Your task to perform on an android device: toggle pop-ups in chrome Image 0: 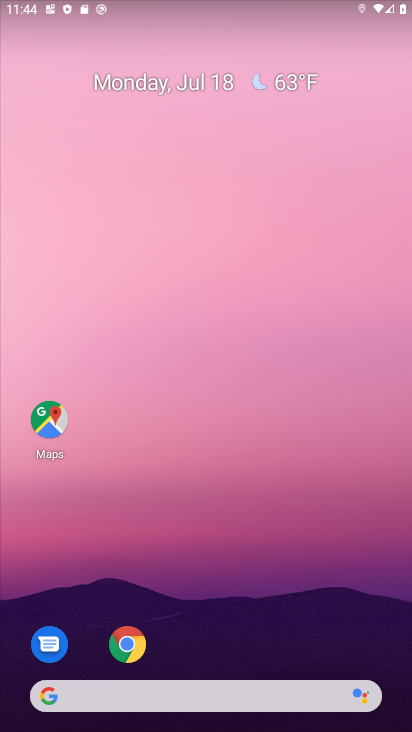
Step 0: click (126, 646)
Your task to perform on an android device: toggle pop-ups in chrome Image 1: 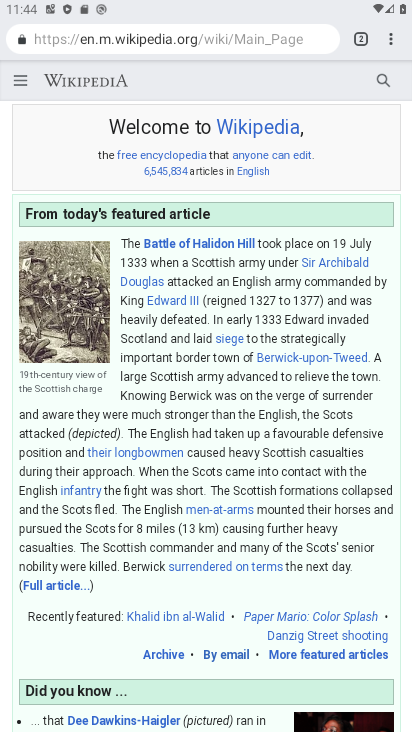
Step 1: click (392, 40)
Your task to perform on an android device: toggle pop-ups in chrome Image 2: 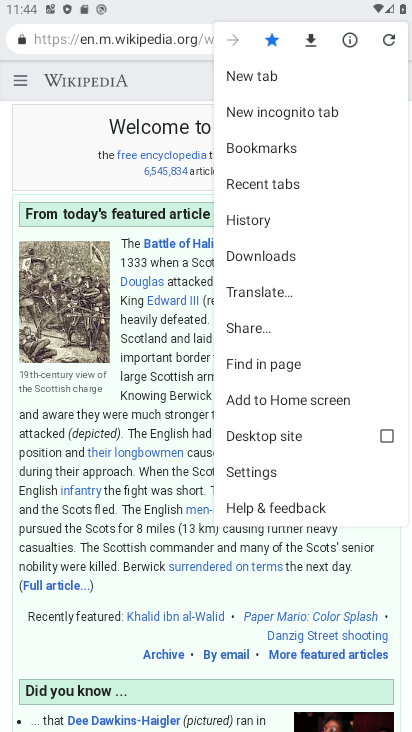
Step 2: click (267, 473)
Your task to perform on an android device: toggle pop-ups in chrome Image 3: 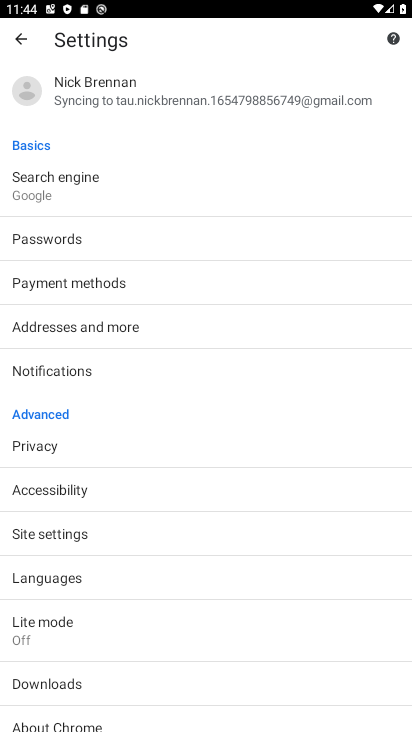
Step 3: click (50, 532)
Your task to perform on an android device: toggle pop-ups in chrome Image 4: 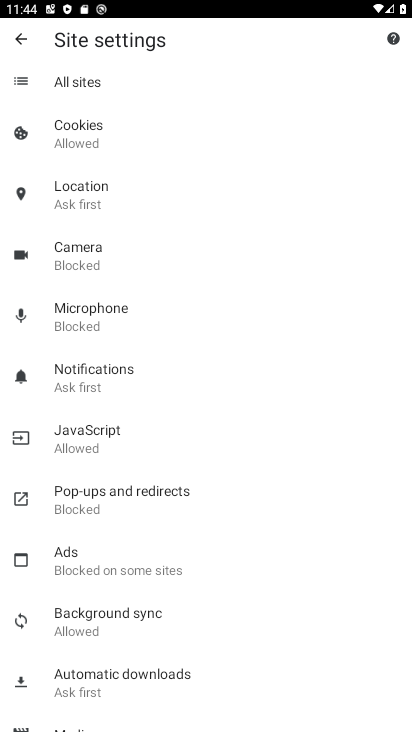
Step 4: click (93, 500)
Your task to perform on an android device: toggle pop-ups in chrome Image 5: 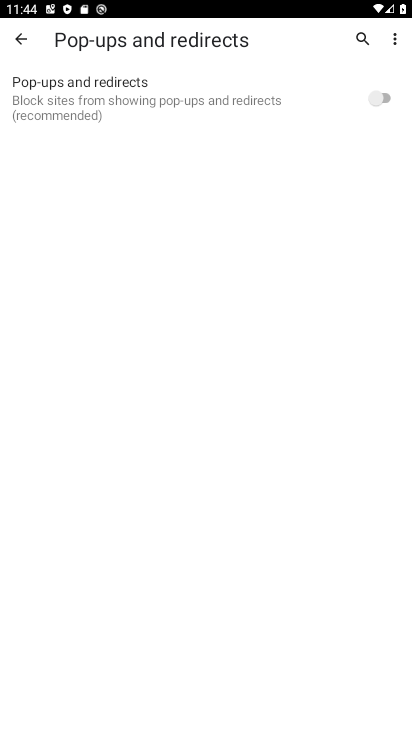
Step 5: click (386, 96)
Your task to perform on an android device: toggle pop-ups in chrome Image 6: 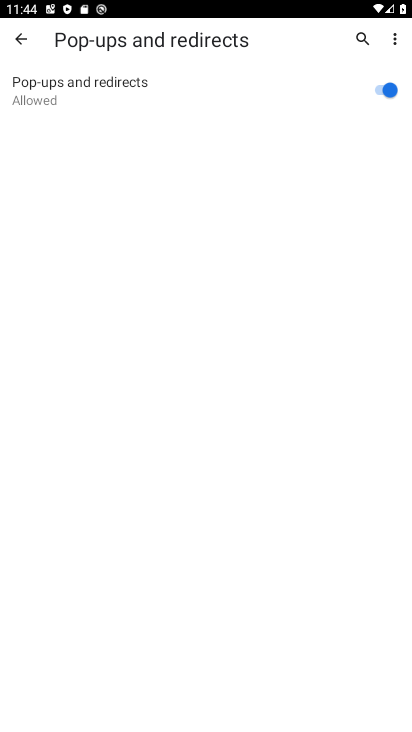
Step 6: task complete